Your task to perform on an android device: toggle wifi Image 0: 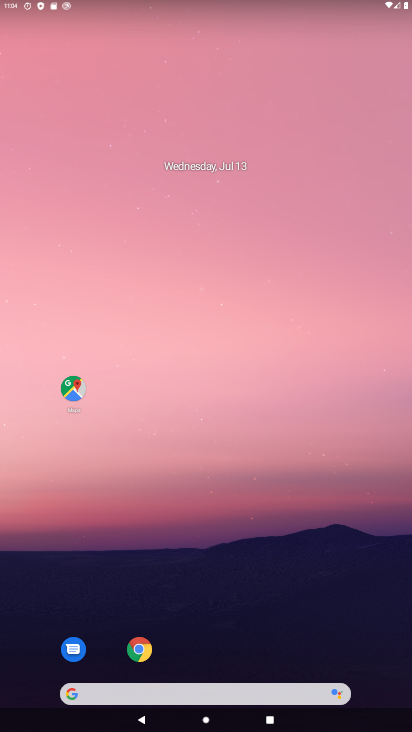
Step 0: drag from (200, 690) to (223, 211)
Your task to perform on an android device: toggle wifi Image 1: 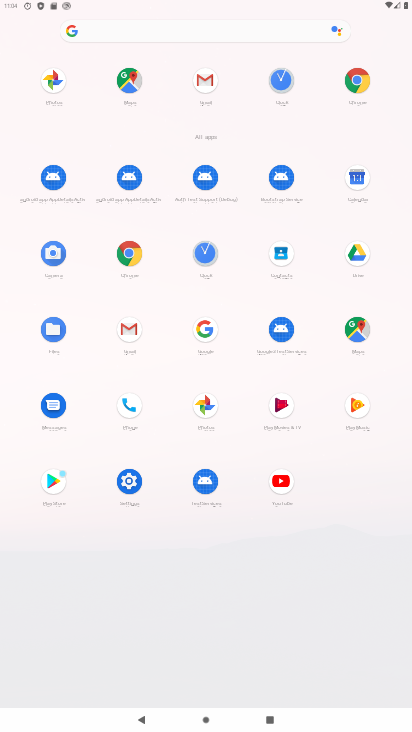
Step 1: click (130, 482)
Your task to perform on an android device: toggle wifi Image 2: 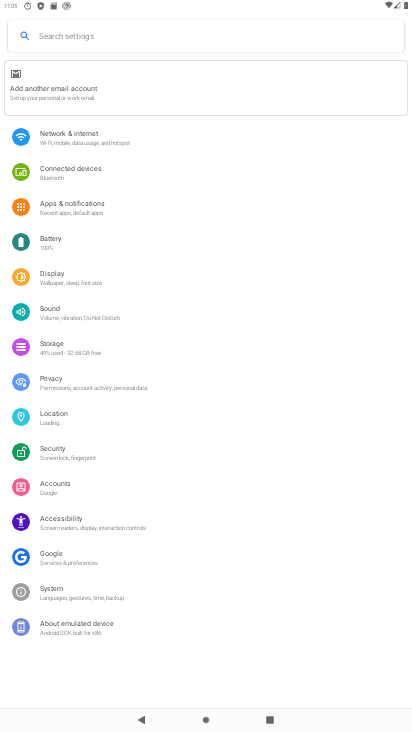
Step 2: click (91, 146)
Your task to perform on an android device: toggle wifi Image 3: 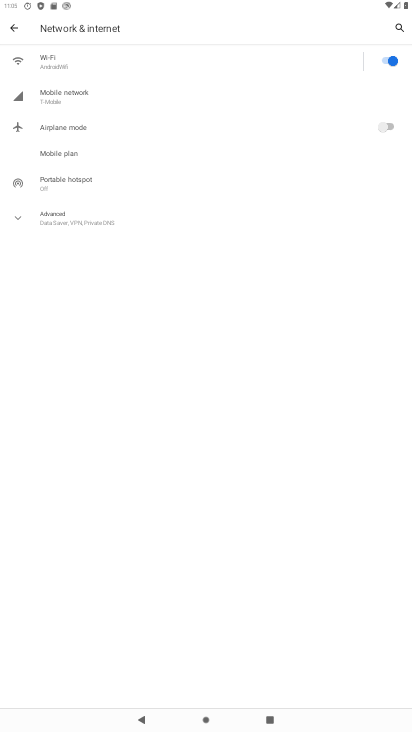
Step 3: click (391, 61)
Your task to perform on an android device: toggle wifi Image 4: 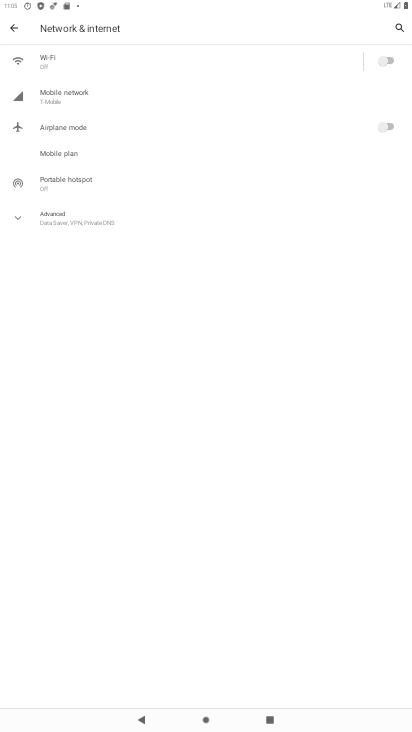
Step 4: task complete